Your task to perform on an android device: turn off notifications in google photos Image 0: 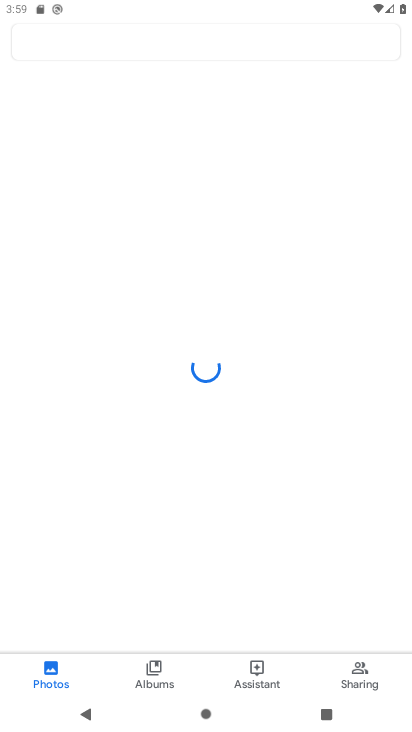
Step 0: press home button
Your task to perform on an android device: turn off notifications in google photos Image 1: 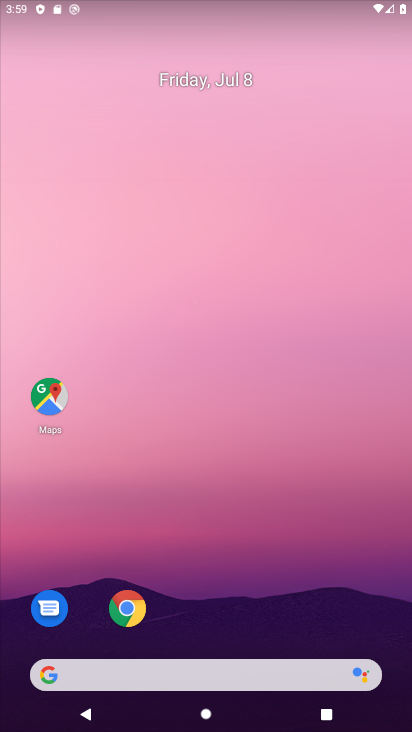
Step 1: drag from (237, 628) to (309, 121)
Your task to perform on an android device: turn off notifications in google photos Image 2: 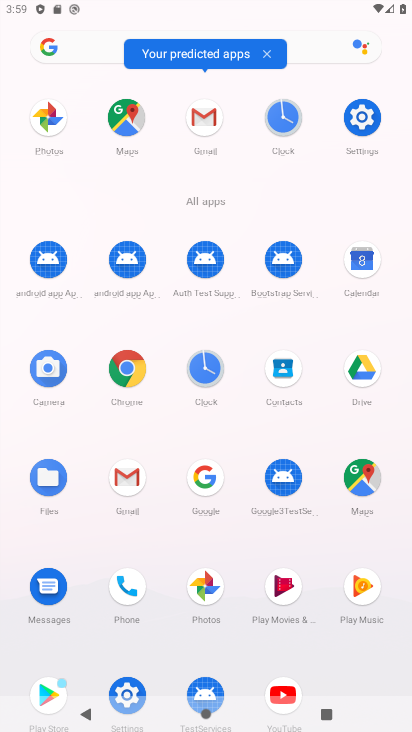
Step 2: click (212, 578)
Your task to perform on an android device: turn off notifications in google photos Image 3: 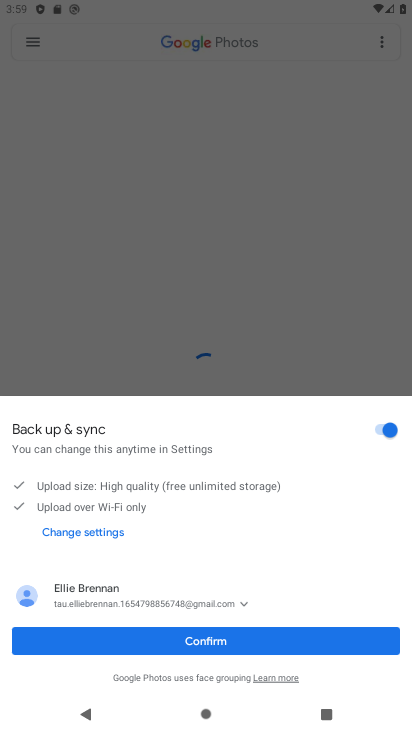
Step 3: click (222, 636)
Your task to perform on an android device: turn off notifications in google photos Image 4: 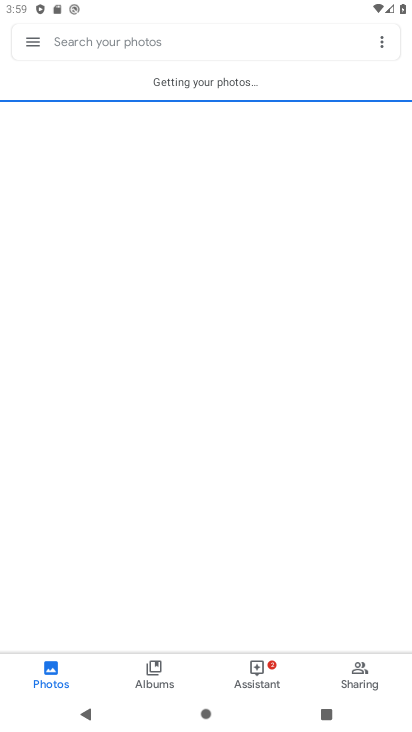
Step 4: click (26, 37)
Your task to perform on an android device: turn off notifications in google photos Image 5: 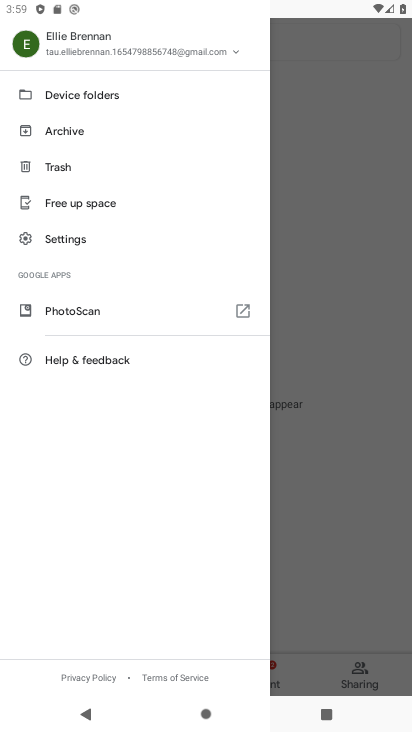
Step 5: click (73, 239)
Your task to perform on an android device: turn off notifications in google photos Image 6: 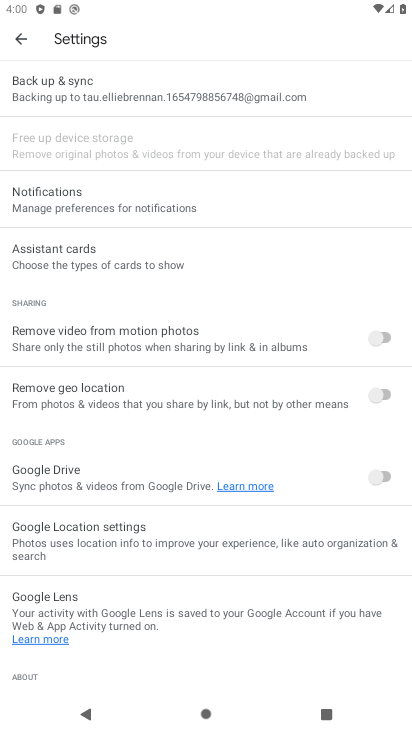
Step 6: click (88, 195)
Your task to perform on an android device: turn off notifications in google photos Image 7: 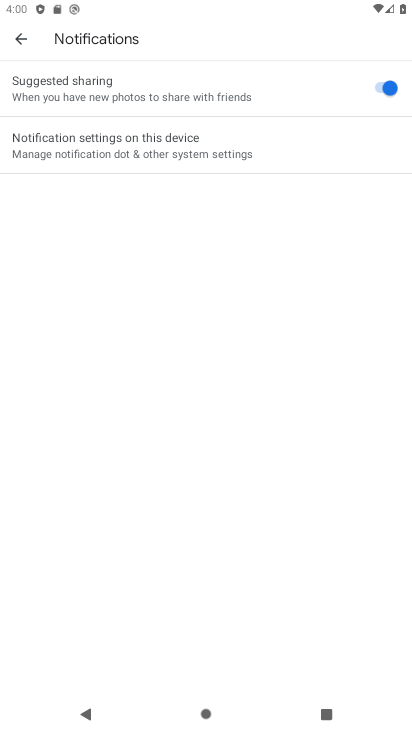
Step 7: click (166, 142)
Your task to perform on an android device: turn off notifications in google photos Image 8: 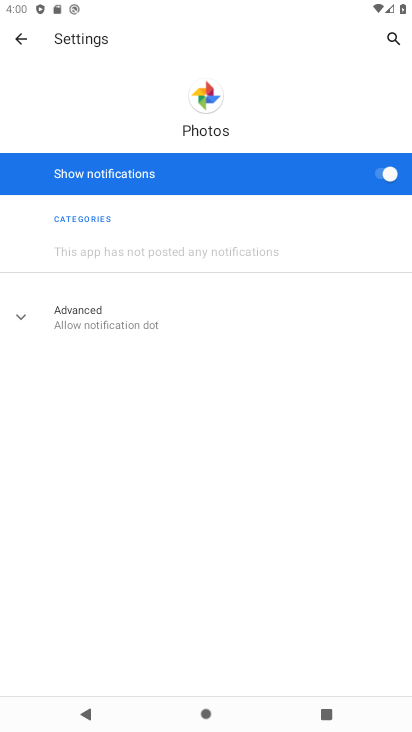
Step 8: click (380, 170)
Your task to perform on an android device: turn off notifications in google photos Image 9: 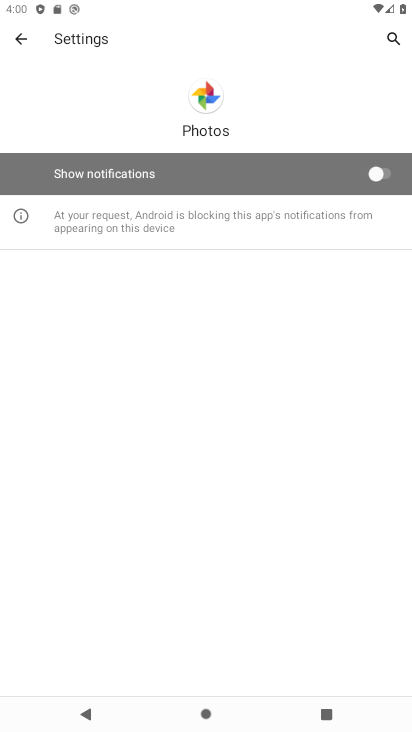
Step 9: task complete